Your task to perform on an android device: Open Youtube and go to "Your channel" Image 0: 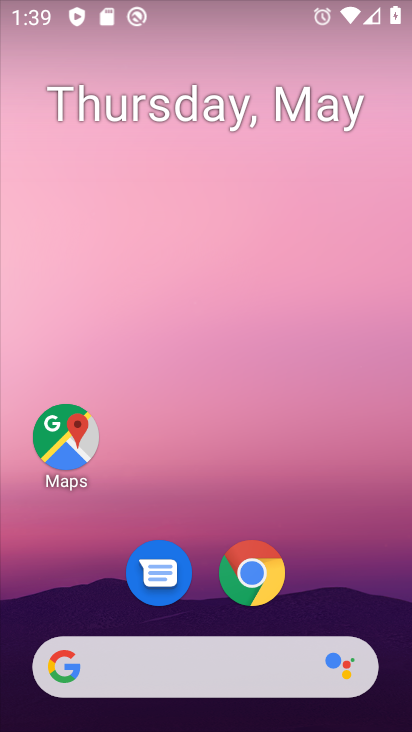
Step 0: drag from (392, 508) to (369, 272)
Your task to perform on an android device: Open Youtube and go to "Your channel" Image 1: 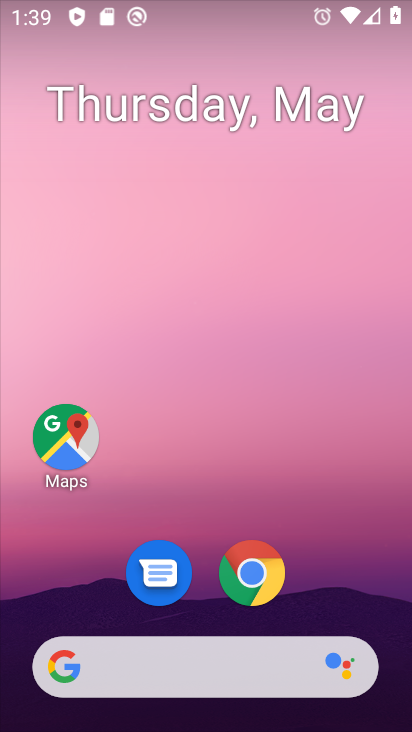
Step 1: drag from (393, 671) to (391, 271)
Your task to perform on an android device: Open Youtube and go to "Your channel" Image 2: 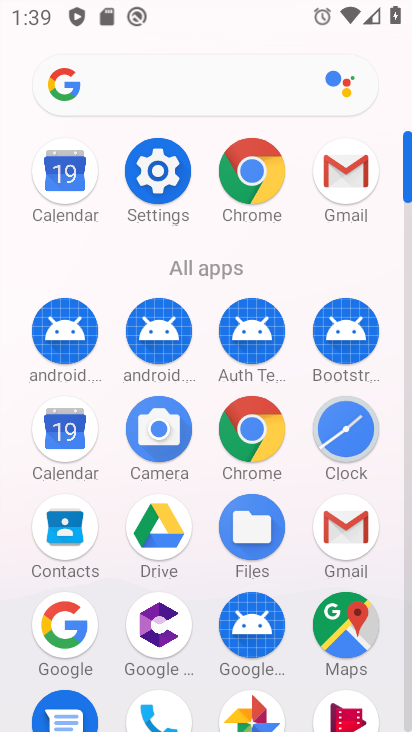
Step 2: drag from (410, 134) to (411, 97)
Your task to perform on an android device: Open Youtube and go to "Your channel" Image 3: 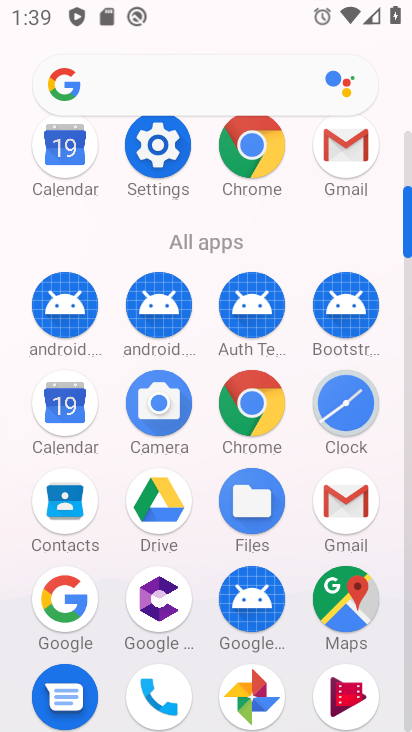
Step 3: drag from (410, 258) to (407, 144)
Your task to perform on an android device: Open Youtube and go to "Your channel" Image 4: 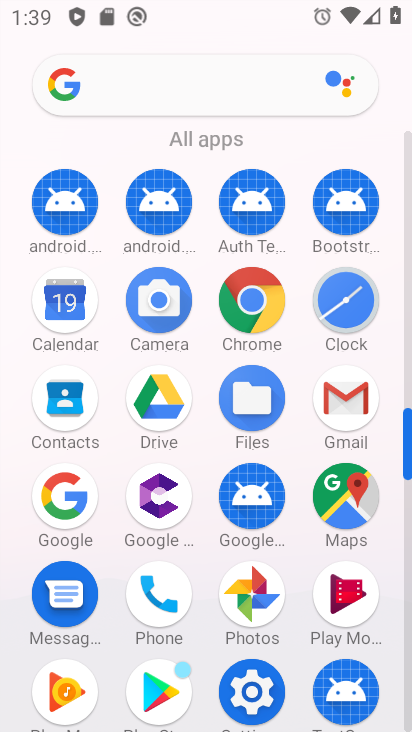
Step 4: drag from (404, 415) to (389, 263)
Your task to perform on an android device: Open Youtube and go to "Your channel" Image 5: 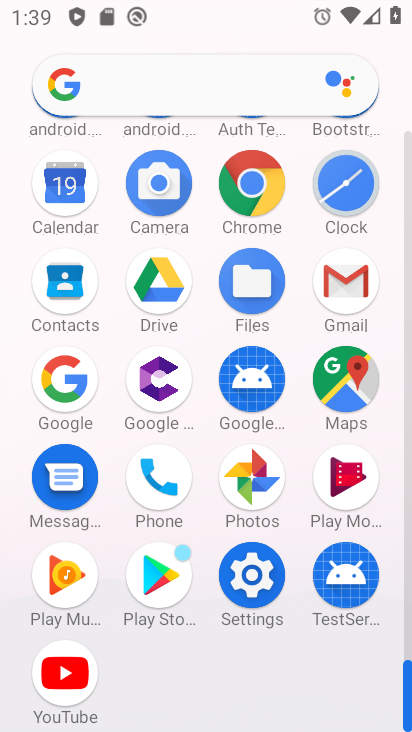
Step 5: click (69, 681)
Your task to perform on an android device: Open Youtube and go to "Your channel" Image 6: 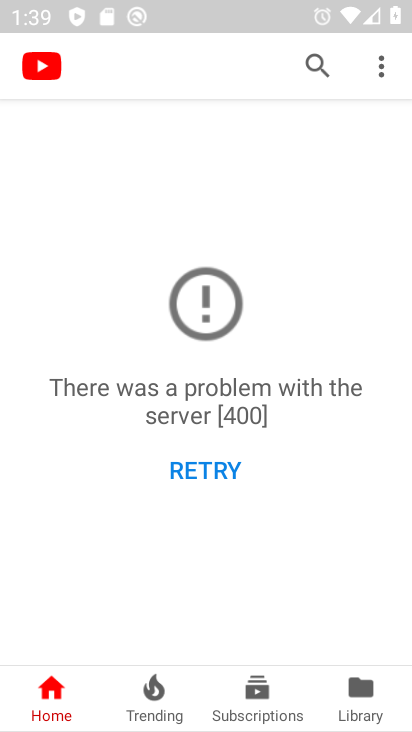
Step 6: click (380, 65)
Your task to perform on an android device: Open Youtube and go to "Your channel" Image 7: 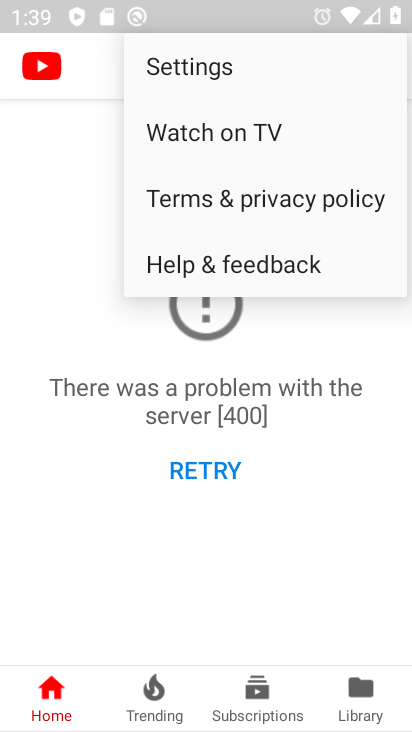
Step 7: task complete